Your task to perform on an android device: turn off translation in the chrome app Image 0: 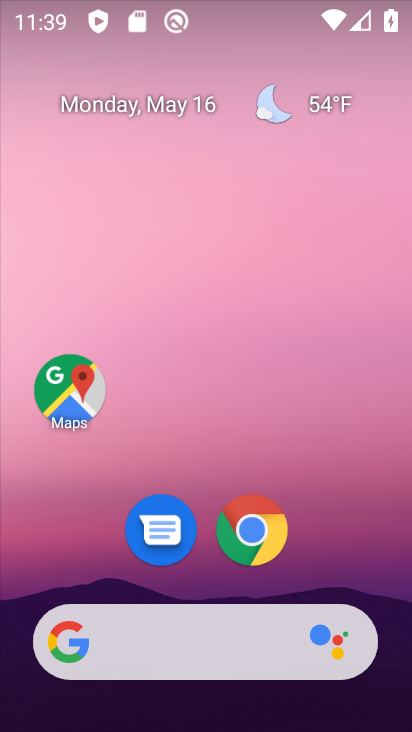
Step 0: drag from (370, 541) to (366, 132)
Your task to perform on an android device: turn off translation in the chrome app Image 1: 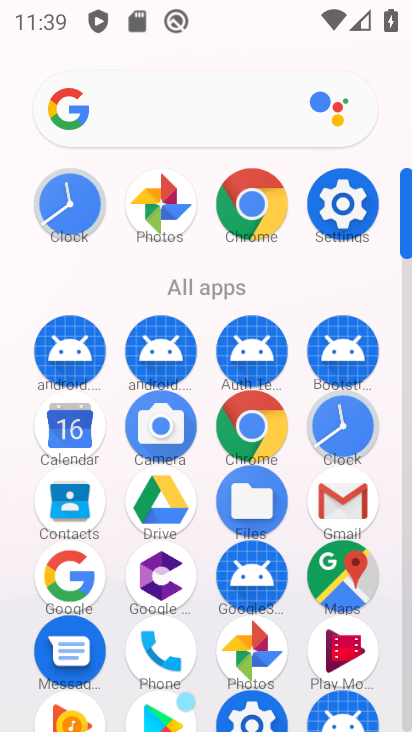
Step 1: click (245, 430)
Your task to perform on an android device: turn off translation in the chrome app Image 2: 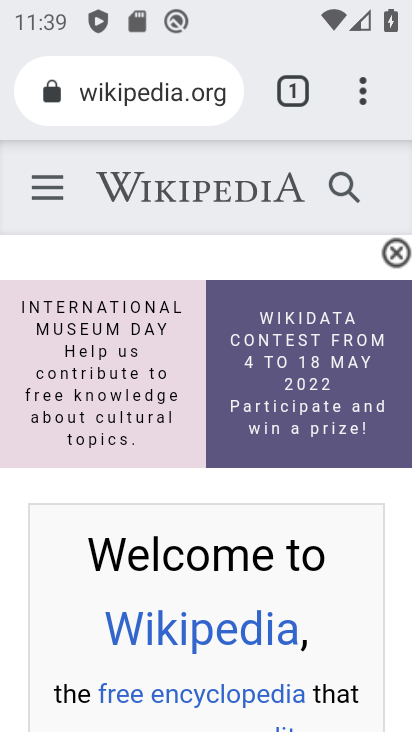
Step 2: click (360, 98)
Your task to perform on an android device: turn off translation in the chrome app Image 3: 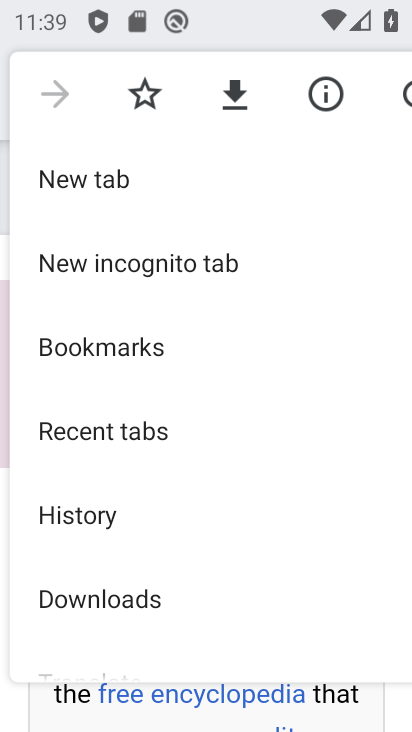
Step 3: drag from (289, 576) to (308, 415)
Your task to perform on an android device: turn off translation in the chrome app Image 4: 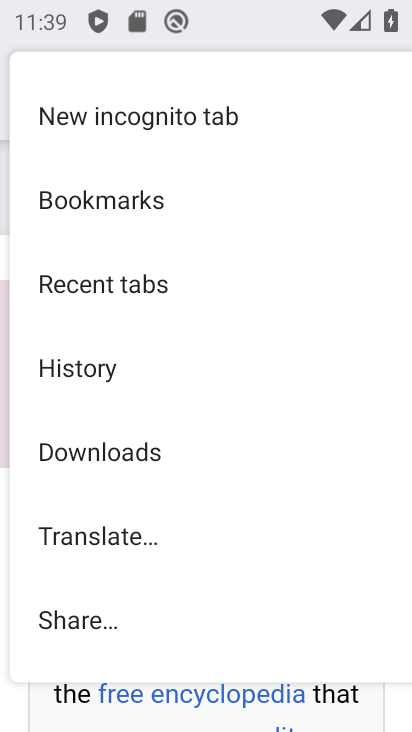
Step 4: drag from (280, 598) to (288, 424)
Your task to perform on an android device: turn off translation in the chrome app Image 5: 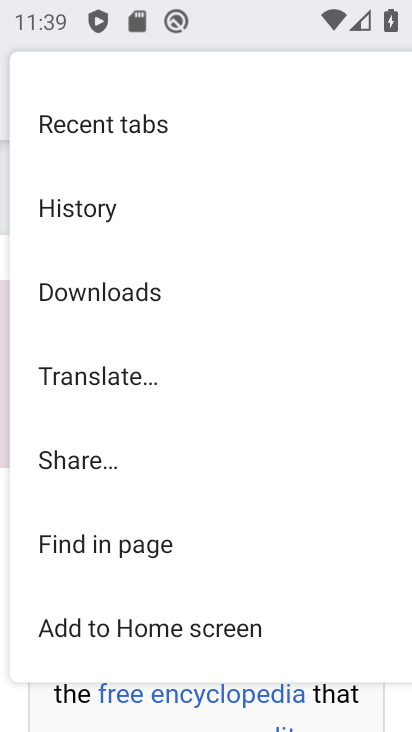
Step 5: drag from (271, 592) to (297, 432)
Your task to perform on an android device: turn off translation in the chrome app Image 6: 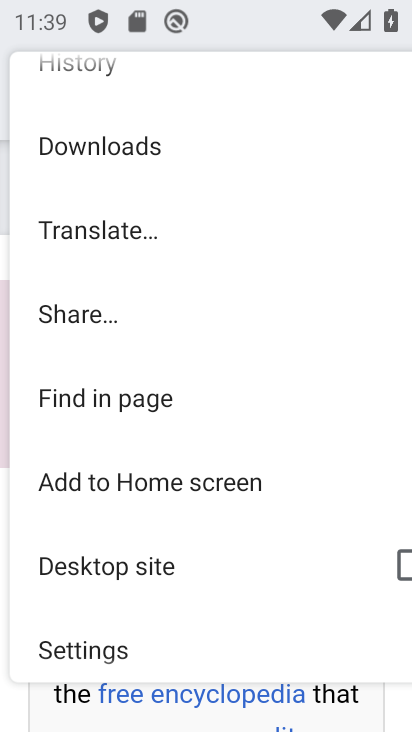
Step 6: drag from (255, 611) to (269, 405)
Your task to perform on an android device: turn off translation in the chrome app Image 7: 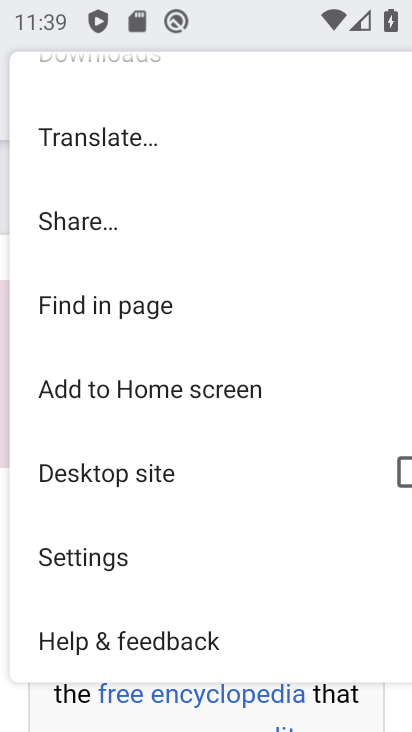
Step 7: click (113, 563)
Your task to perform on an android device: turn off translation in the chrome app Image 8: 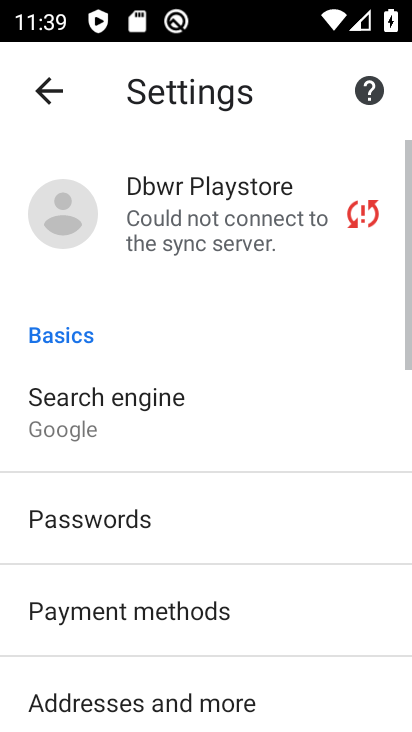
Step 8: drag from (279, 662) to (273, 543)
Your task to perform on an android device: turn off translation in the chrome app Image 9: 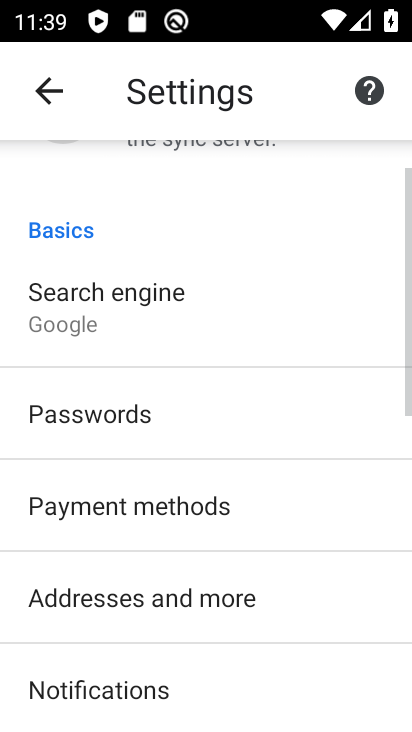
Step 9: drag from (308, 692) to (313, 578)
Your task to perform on an android device: turn off translation in the chrome app Image 10: 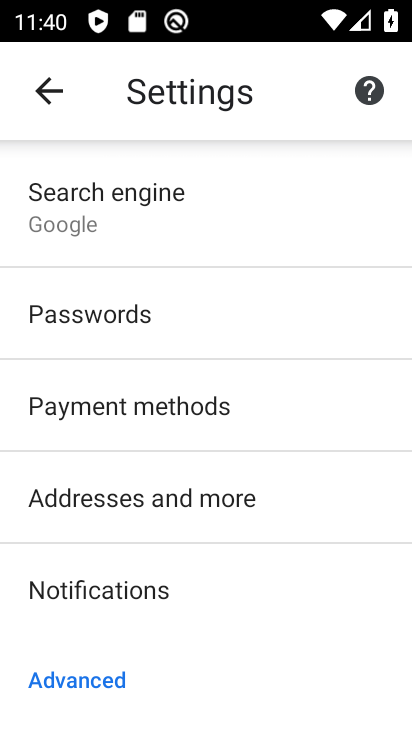
Step 10: drag from (301, 563) to (299, 400)
Your task to perform on an android device: turn off translation in the chrome app Image 11: 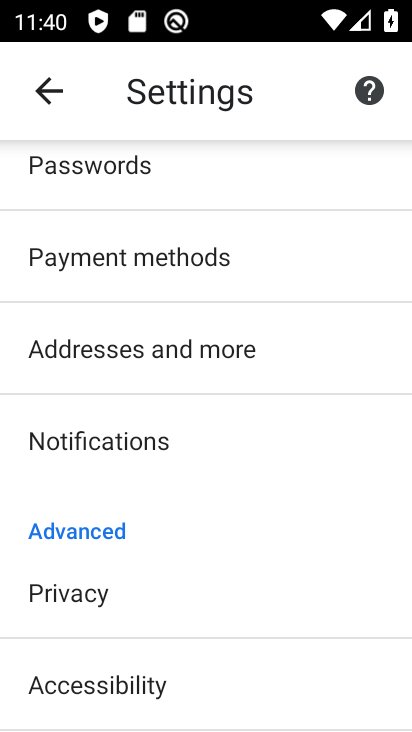
Step 11: drag from (276, 604) to (286, 495)
Your task to perform on an android device: turn off translation in the chrome app Image 12: 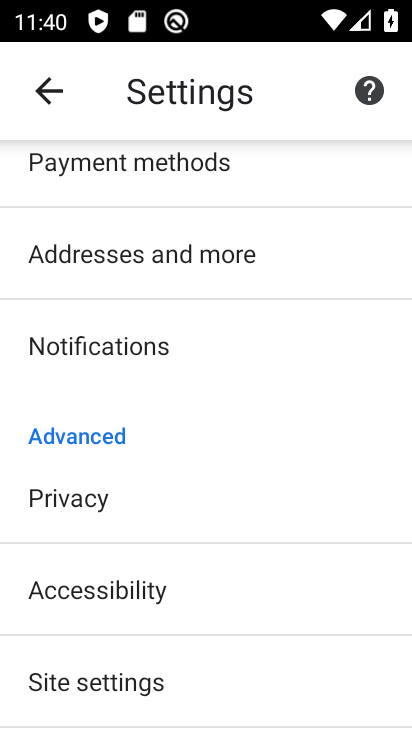
Step 12: drag from (225, 681) to (236, 531)
Your task to perform on an android device: turn off translation in the chrome app Image 13: 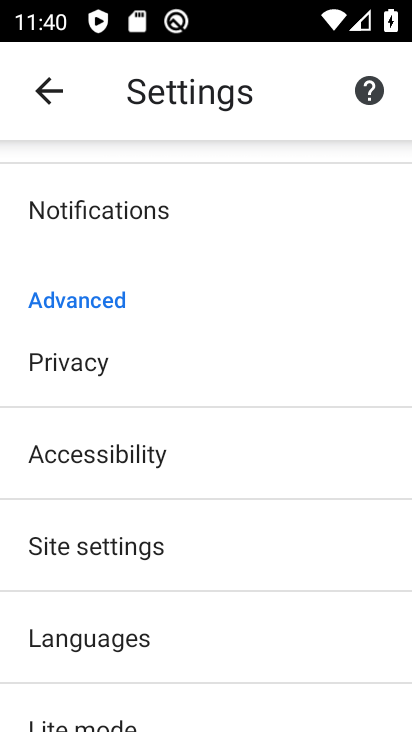
Step 13: drag from (250, 680) to (257, 561)
Your task to perform on an android device: turn off translation in the chrome app Image 14: 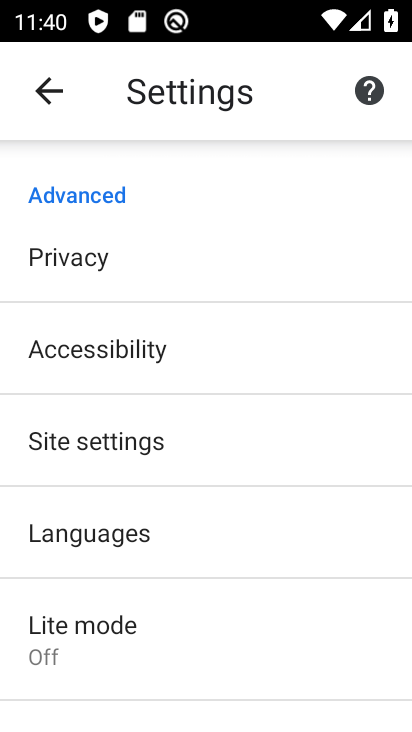
Step 14: click (255, 552)
Your task to perform on an android device: turn off translation in the chrome app Image 15: 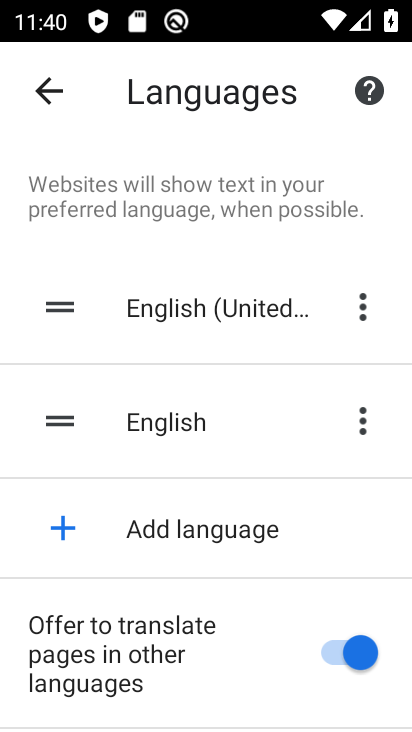
Step 15: click (322, 661)
Your task to perform on an android device: turn off translation in the chrome app Image 16: 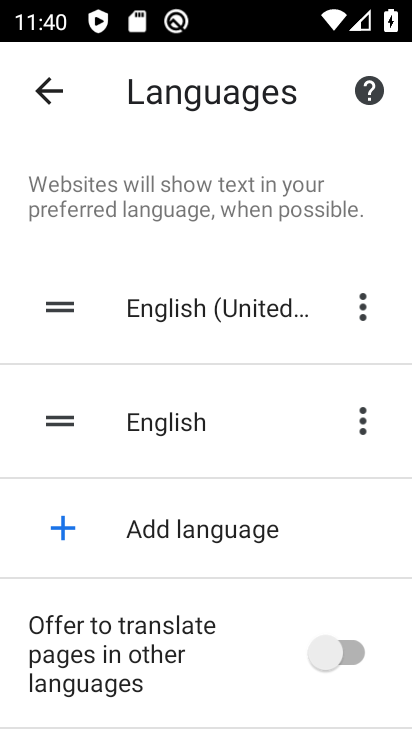
Step 16: task complete